Your task to perform on an android device: Open sound settings Image 0: 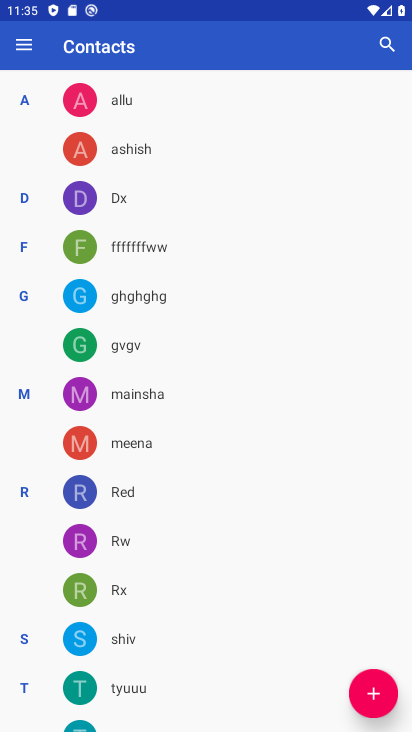
Step 0: press back button
Your task to perform on an android device: Open sound settings Image 1: 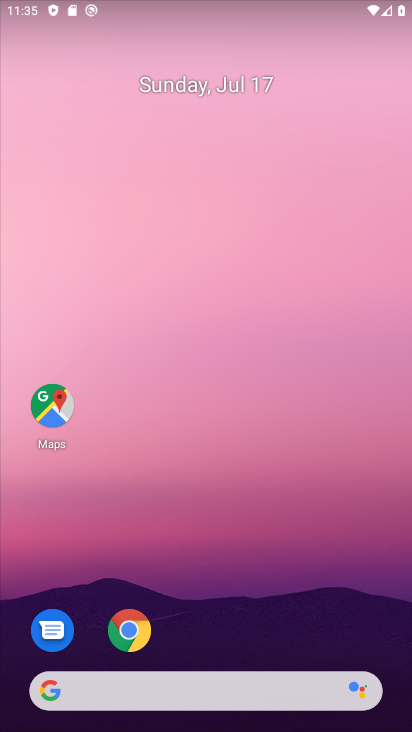
Step 1: drag from (223, 579) to (171, 190)
Your task to perform on an android device: Open sound settings Image 2: 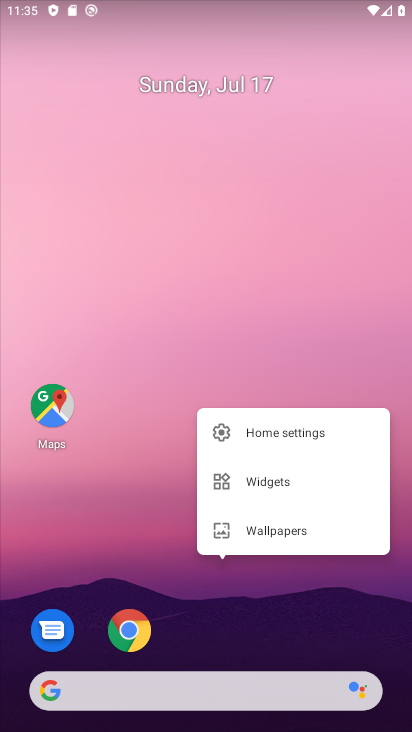
Step 2: drag from (226, 678) to (180, 98)
Your task to perform on an android device: Open sound settings Image 3: 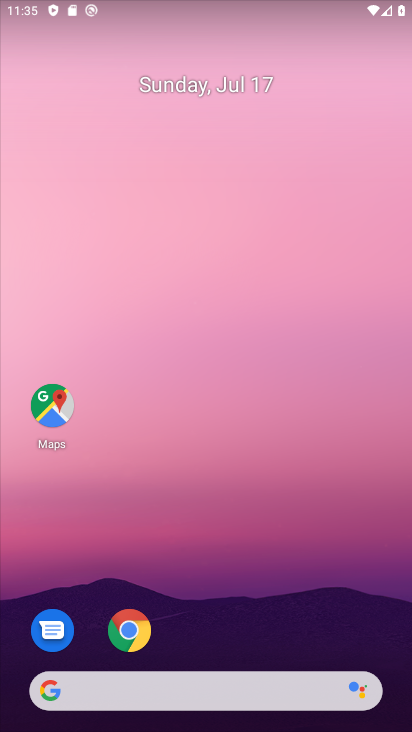
Step 3: drag from (154, 641) to (148, 174)
Your task to perform on an android device: Open sound settings Image 4: 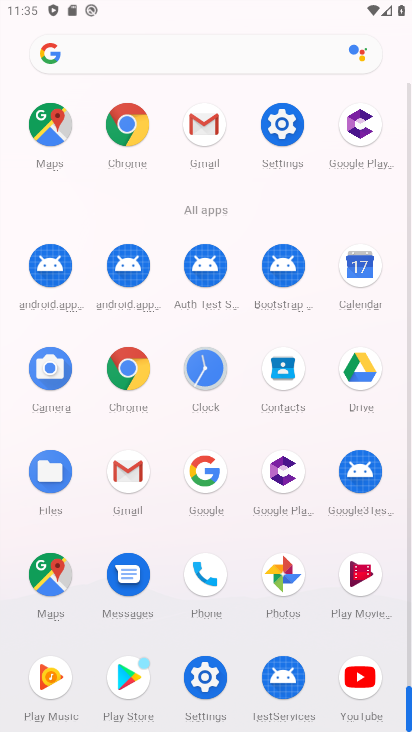
Step 4: click (279, 135)
Your task to perform on an android device: Open sound settings Image 5: 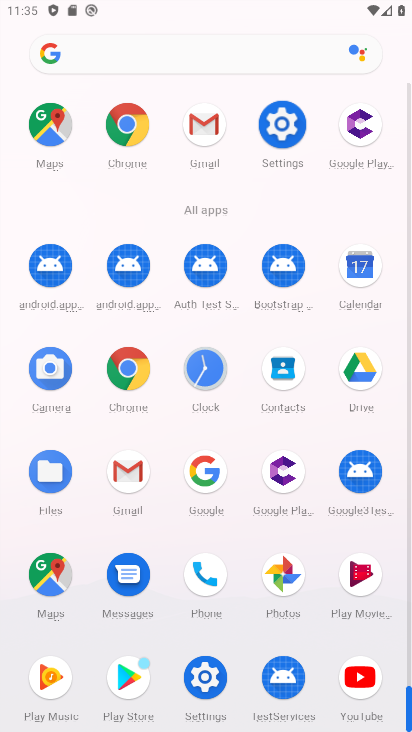
Step 5: click (280, 133)
Your task to perform on an android device: Open sound settings Image 6: 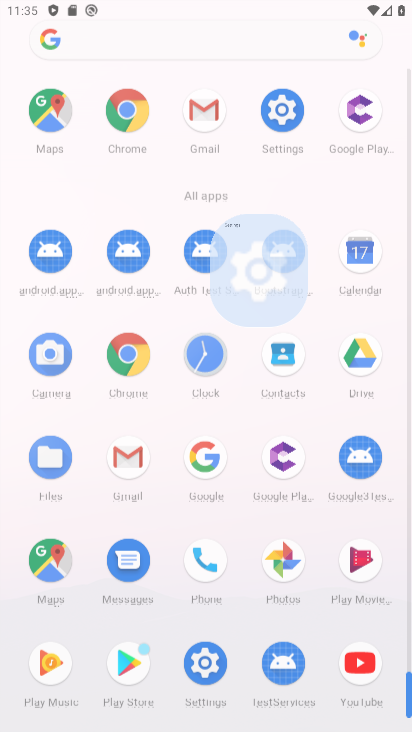
Step 6: click (282, 133)
Your task to perform on an android device: Open sound settings Image 7: 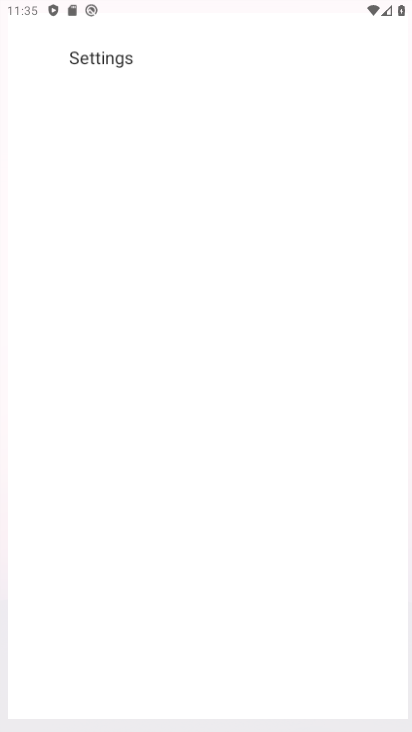
Step 7: click (285, 130)
Your task to perform on an android device: Open sound settings Image 8: 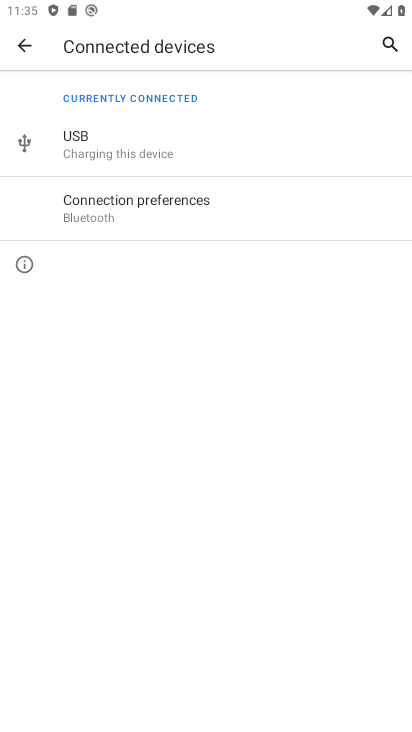
Step 8: click (22, 48)
Your task to perform on an android device: Open sound settings Image 9: 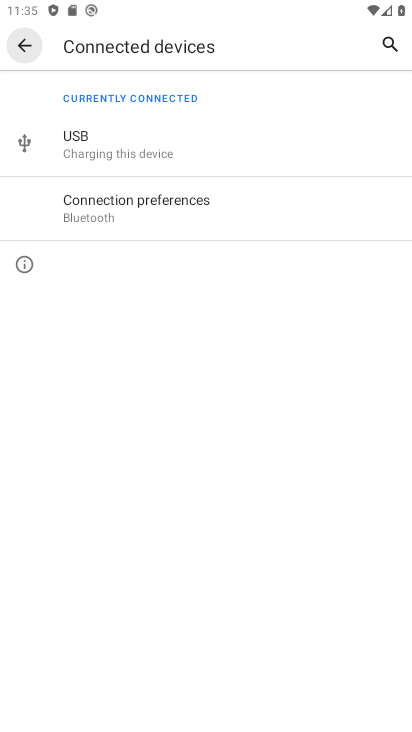
Step 9: click (22, 48)
Your task to perform on an android device: Open sound settings Image 10: 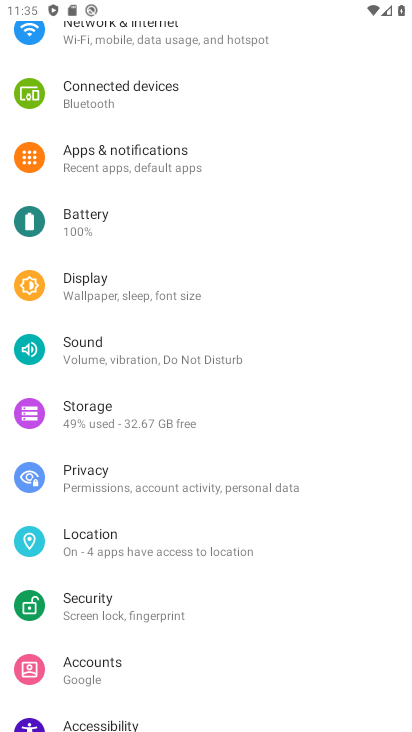
Step 10: click (81, 346)
Your task to perform on an android device: Open sound settings Image 11: 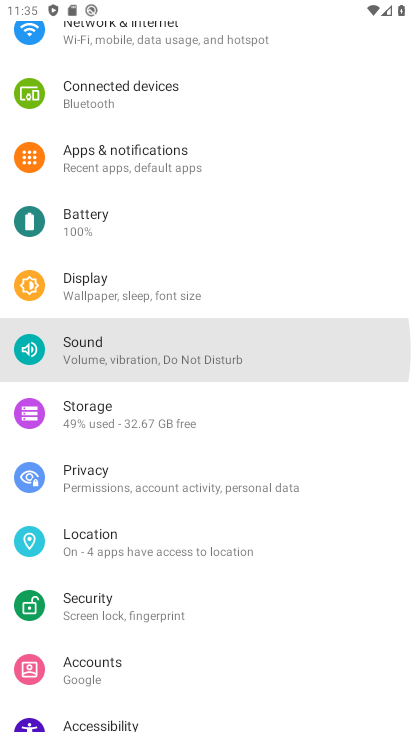
Step 11: click (81, 346)
Your task to perform on an android device: Open sound settings Image 12: 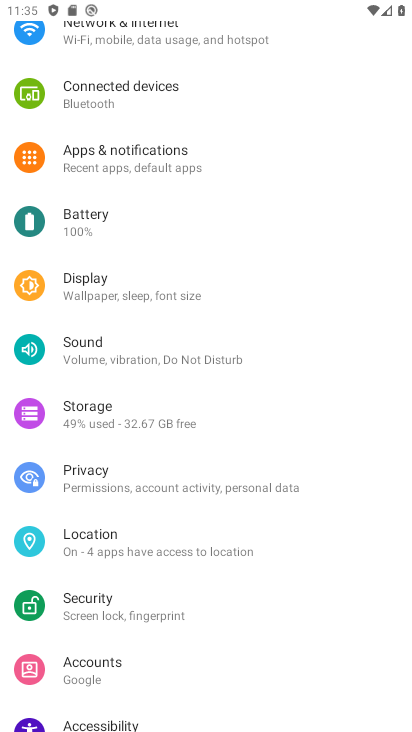
Step 12: click (81, 346)
Your task to perform on an android device: Open sound settings Image 13: 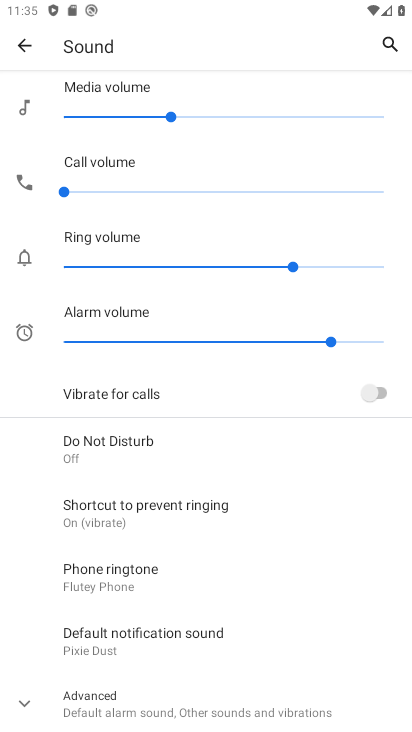
Step 13: task complete